Your task to perform on an android device: install app "Reddit" Image 0: 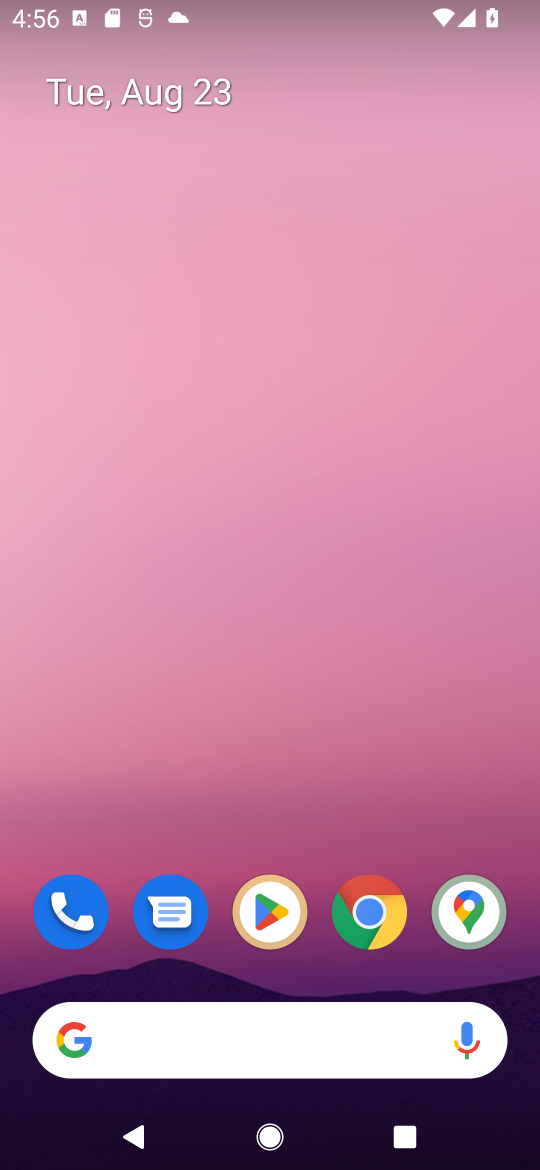
Step 0: drag from (323, 1028) to (367, 228)
Your task to perform on an android device: install app "Reddit" Image 1: 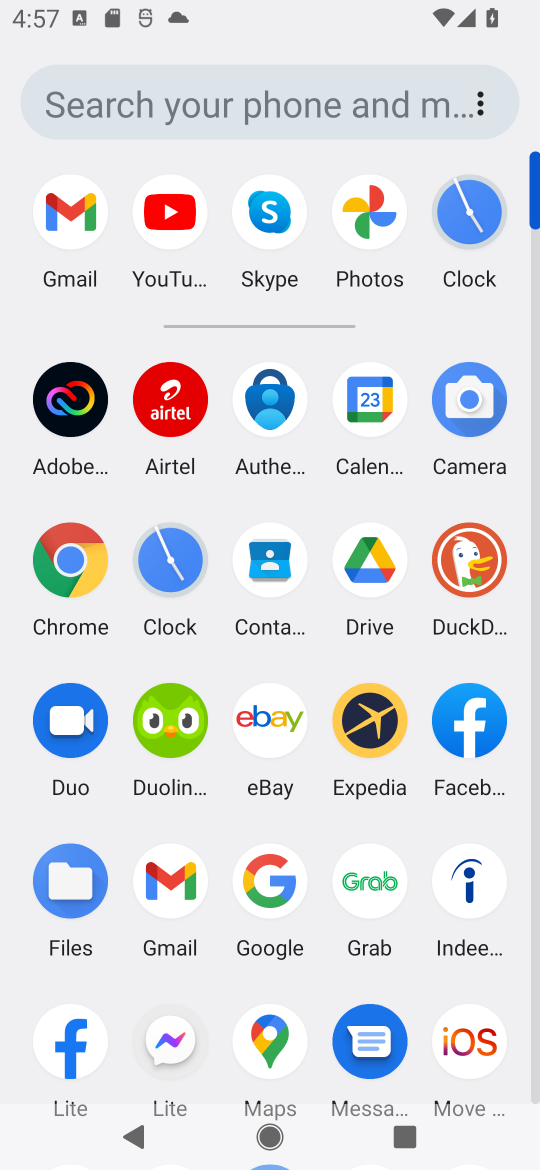
Step 1: drag from (330, 990) to (369, 537)
Your task to perform on an android device: install app "Reddit" Image 2: 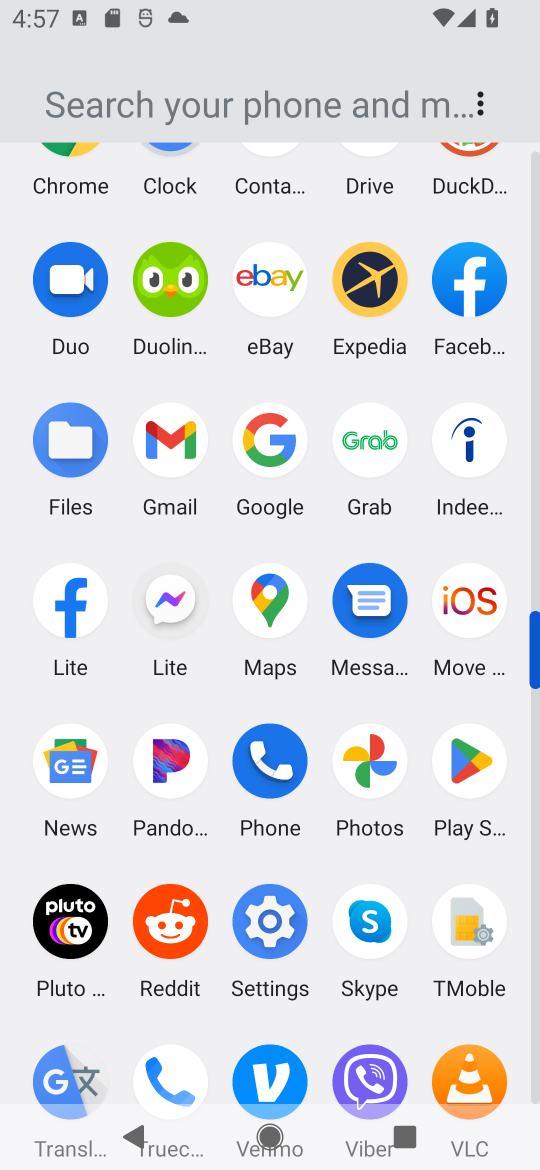
Step 2: click (477, 763)
Your task to perform on an android device: install app "Reddit" Image 3: 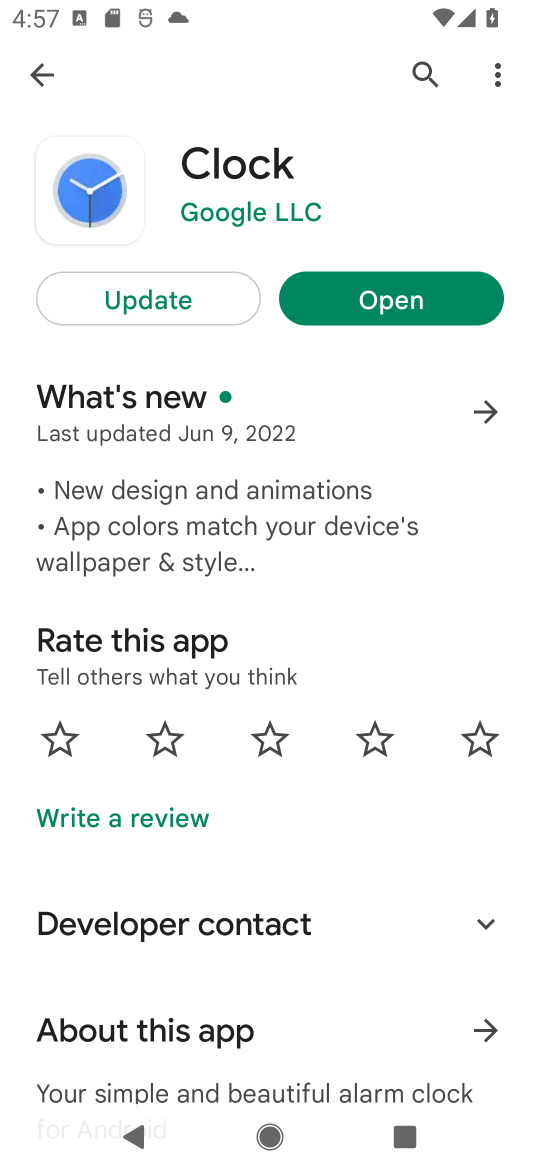
Step 3: press back button
Your task to perform on an android device: install app "Reddit" Image 4: 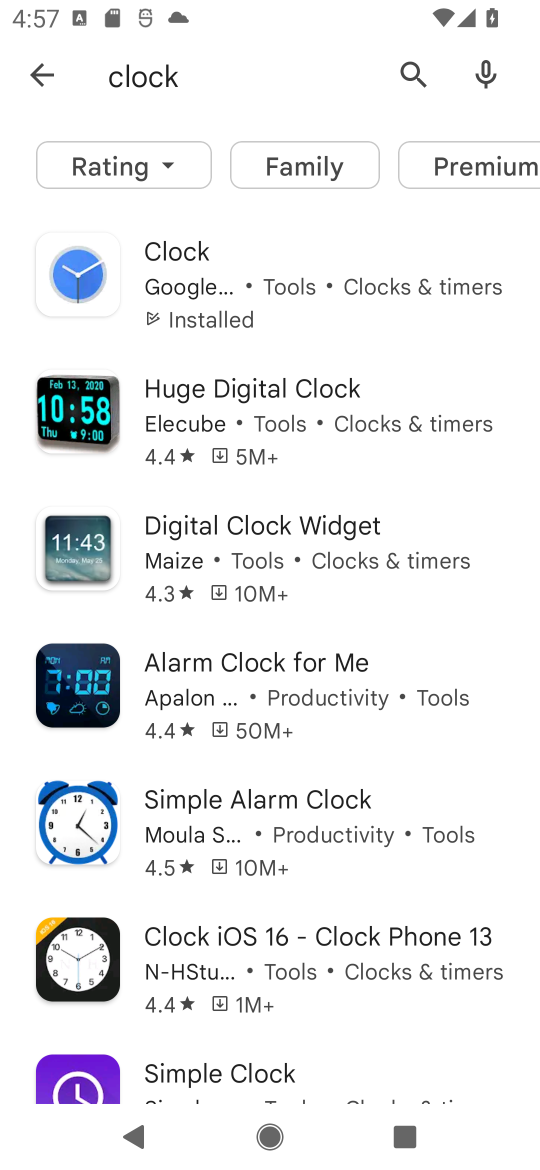
Step 4: press back button
Your task to perform on an android device: install app "Reddit" Image 5: 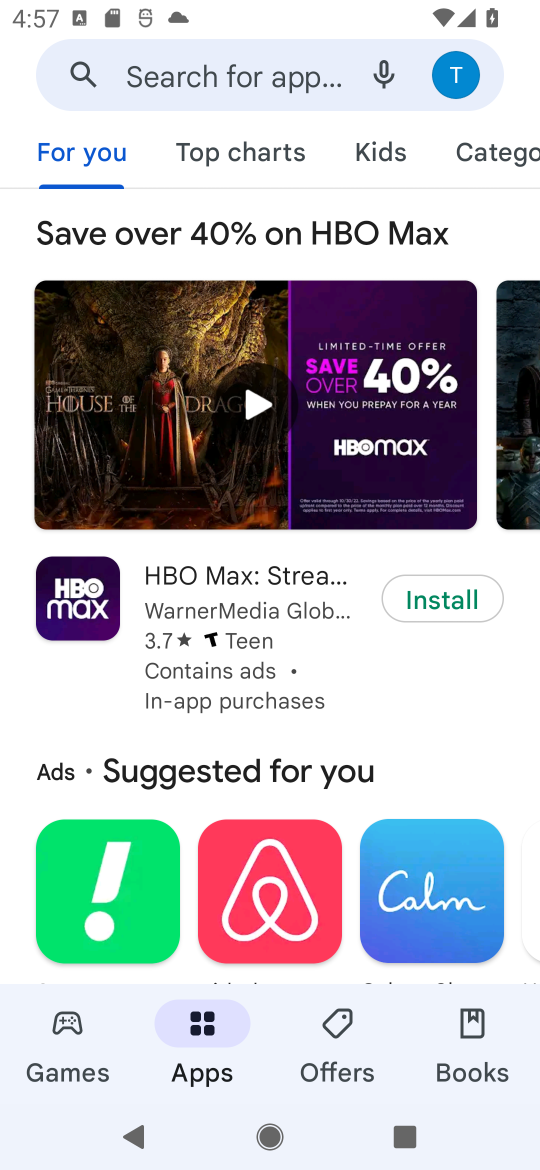
Step 5: click (257, 73)
Your task to perform on an android device: install app "Reddit" Image 6: 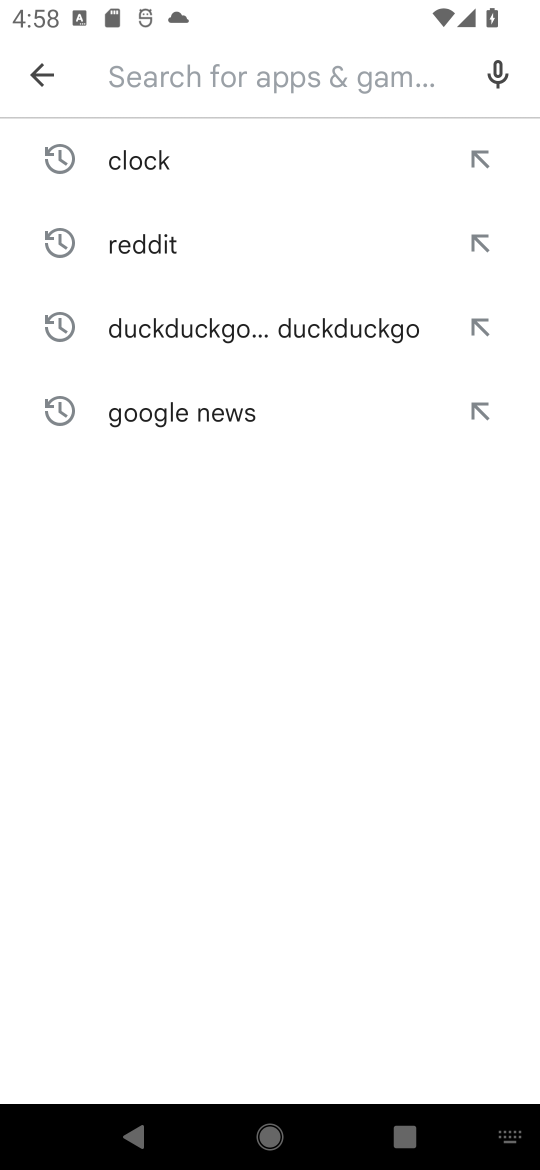
Step 6: type "Reddit"
Your task to perform on an android device: install app "Reddit" Image 7: 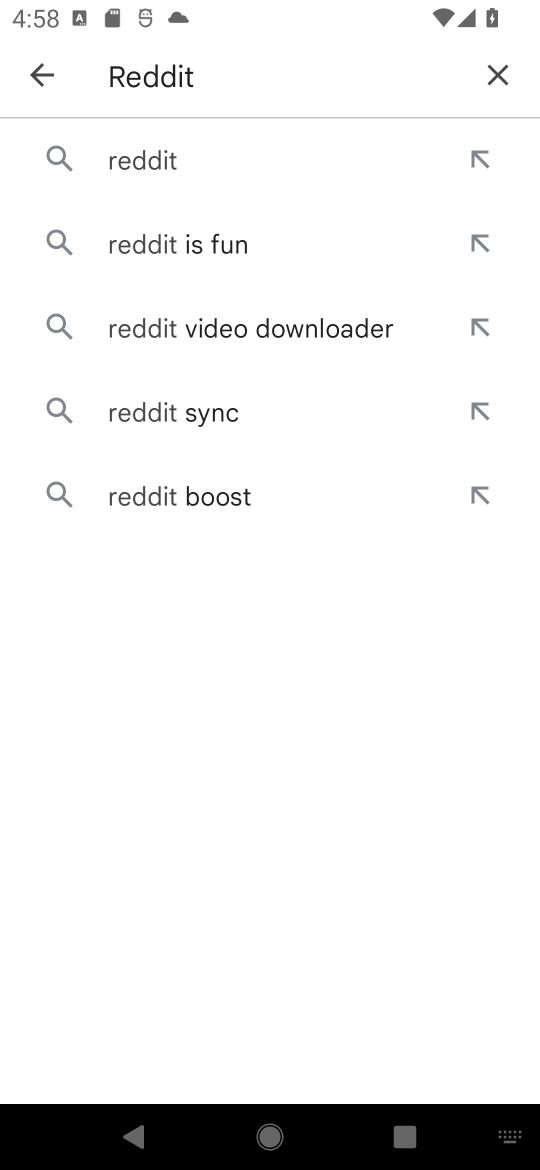
Step 7: click (154, 168)
Your task to perform on an android device: install app "Reddit" Image 8: 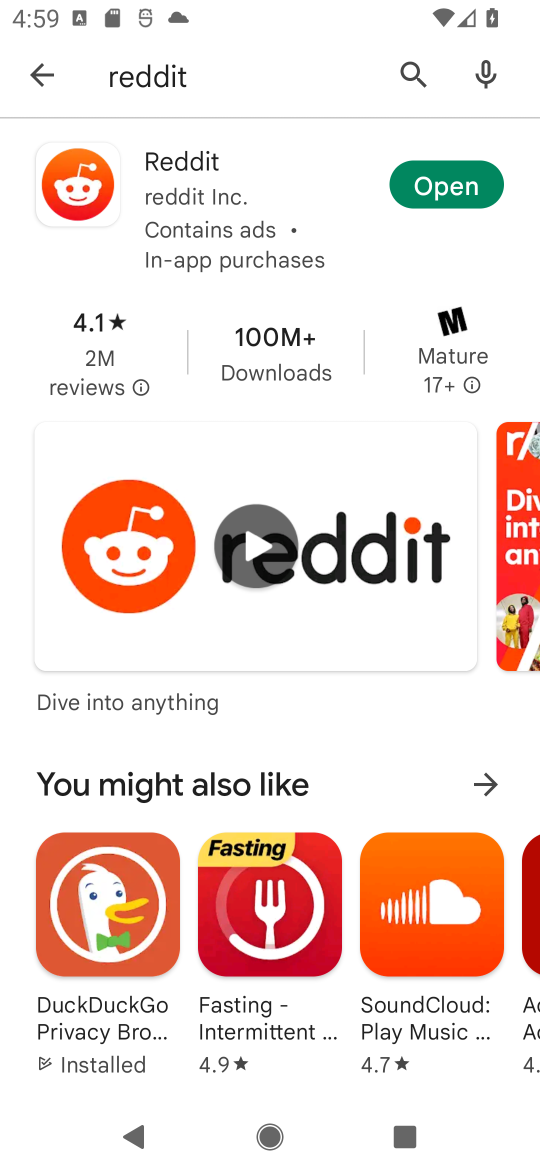
Step 8: task complete